Your task to perform on an android device: turn on showing notifications on the lock screen Image 0: 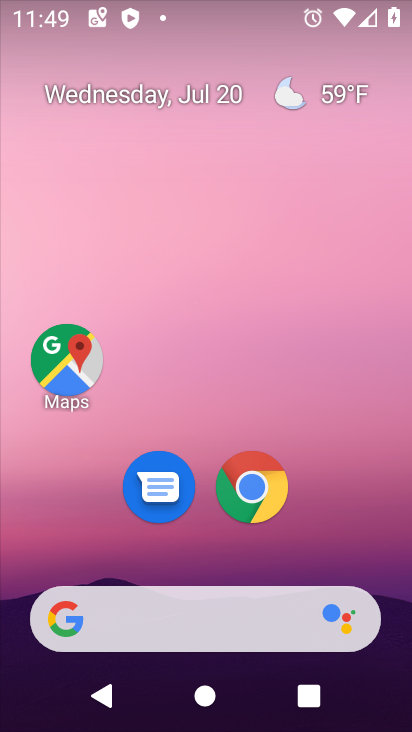
Step 0: drag from (380, 543) to (358, 167)
Your task to perform on an android device: turn on showing notifications on the lock screen Image 1: 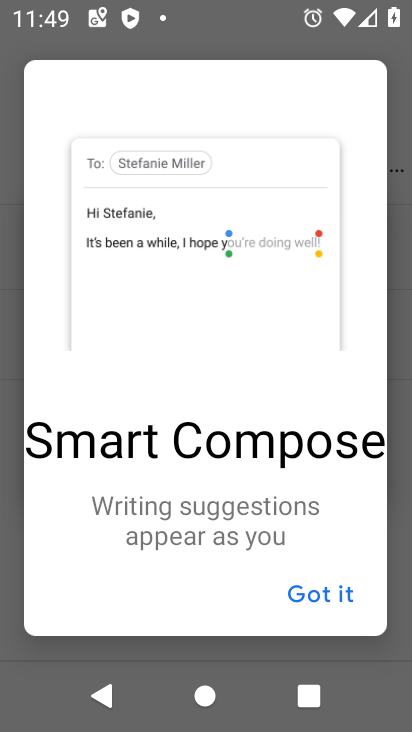
Step 1: press home button
Your task to perform on an android device: turn on showing notifications on the lock screen Image 2: 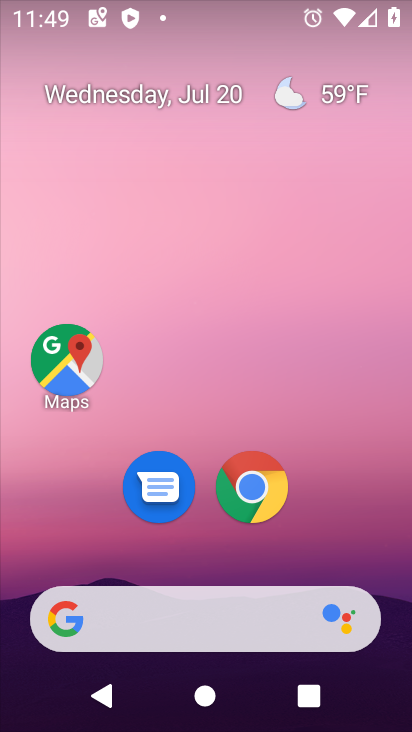
Step 2: drag from (351, 519) to (390, 128)
Your task to perform on an android device: turn on showing notifications on the lock screen Image 3: 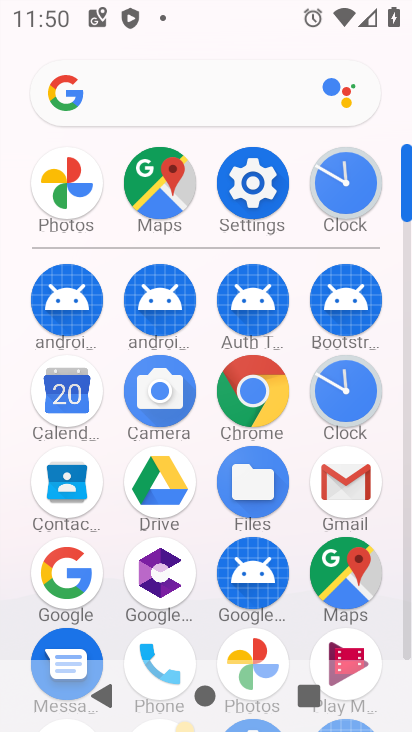
Step 3: click (263, 206)
Your task to perform on an android device: turn on showing notifications on the lock screen Image 4: 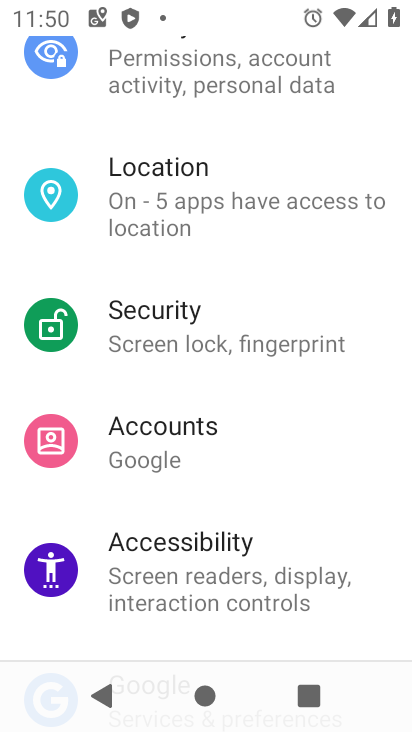
Step 4: drag from (335, 252) to (349, 332)
Your task to perform on an android device: turn on showing notifications on the lock screen Image 5: 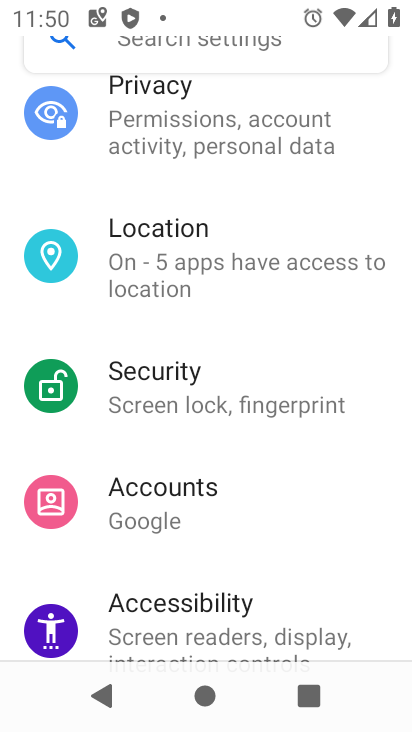
Step 5: drag from (387, 214) to (389, 295)
Your task to perform on an android device: turn on showing notifications on the lock screen Image 6: 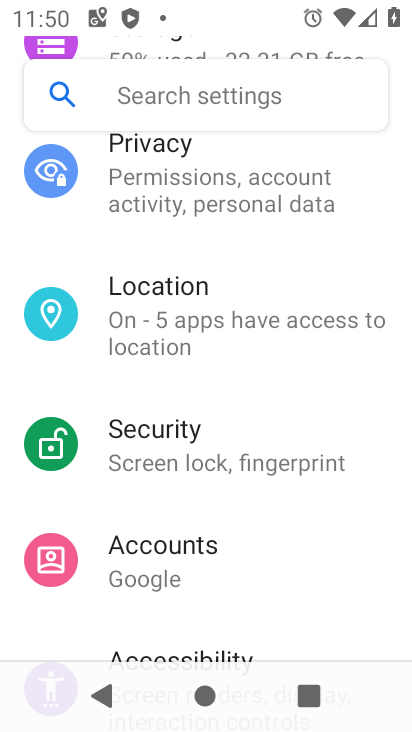
Step 6: drag from (375, 182) to (369, 265)
Your task to perform on an android device: turn on showing notifications on the lock screen Image 7: 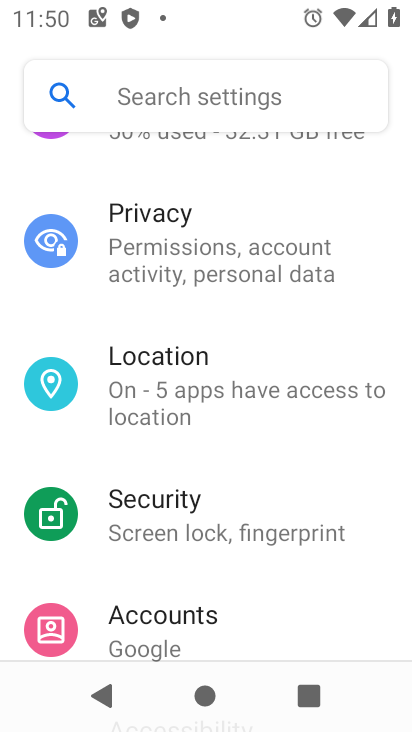
Step 7: drag from (348, 190) to (337, 323)
Your task to perform on an android device: turn on showing notifications on the lock screen Image 8: 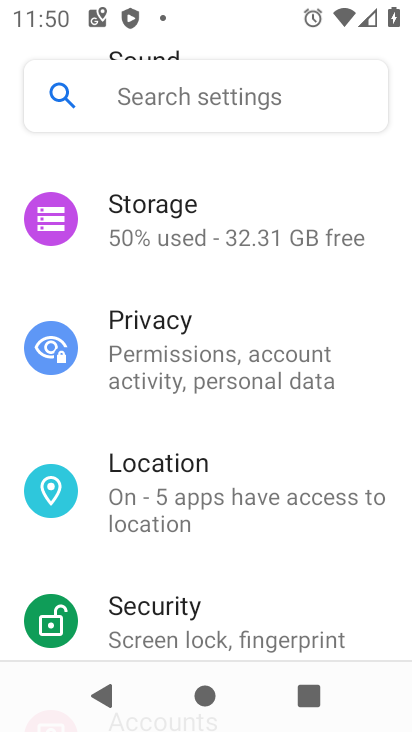
Step 8: drag from (374, 170) to (384, 329)
Your task to perform on an android device: turn on showing notifications on the lock screen Image 9: 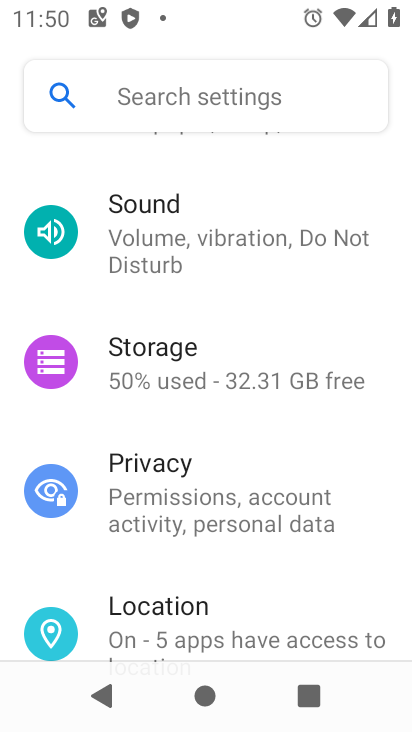
Step 9: drag from (365, 176) to (368, 323)
Your task to perform on an android device: turn on showing notifications on the lock screen Image 10: 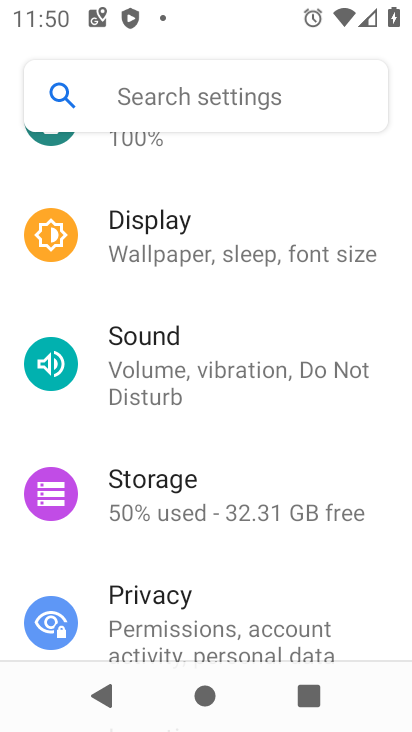
Step 10: drag from (324, 177) to (297, 344)
Your task to perform on an android device: turn on showing notifications on the lock screen Image 11: 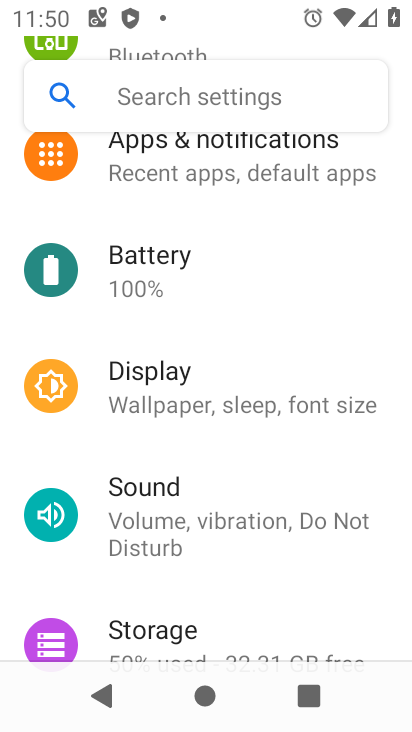
Step 11: drag from (285, 250) to (293, 343)
Your task to perform on an android device: turn on showing notifications on the lock screen Image 12: 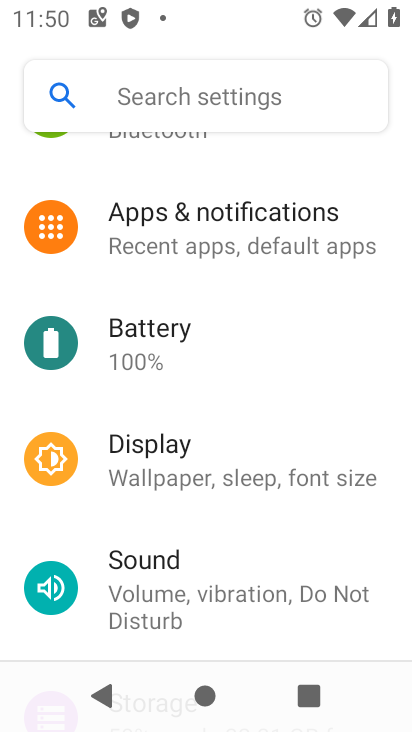
Step 12: click (284, 240)
Your task to perform on an android device: turn on showing notifications on the lock screen Image 13: 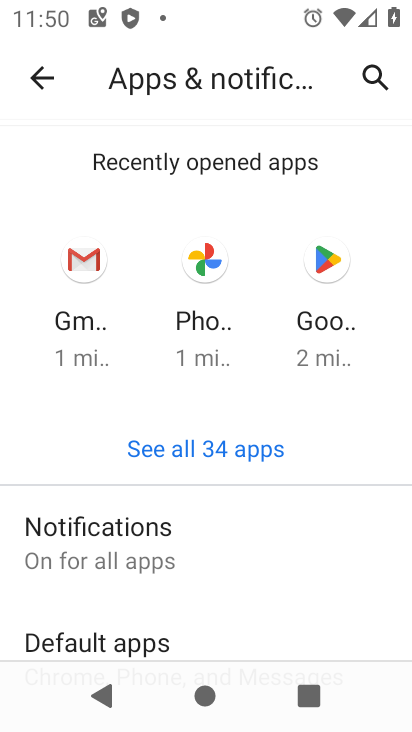
Step 13: click (151, 548)
Your task to perform on an android device: turn on showing notifications on the lock screen Image 14: 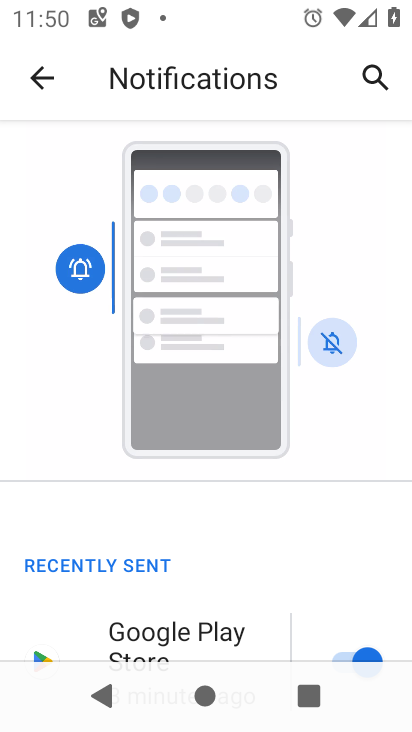
Step 14: drag from (193, 580) to (195, 223)
Your task to perform on an android device: turn on showing notifications on the lock screen Image 15: 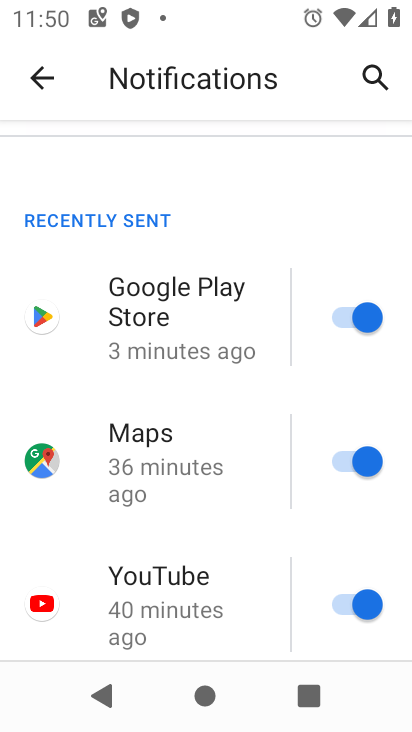
Step 15: drag from (252, 537) to (251, 311)
Your task to perform on an android device: turn on showing notifications on the lock screen Image 16: 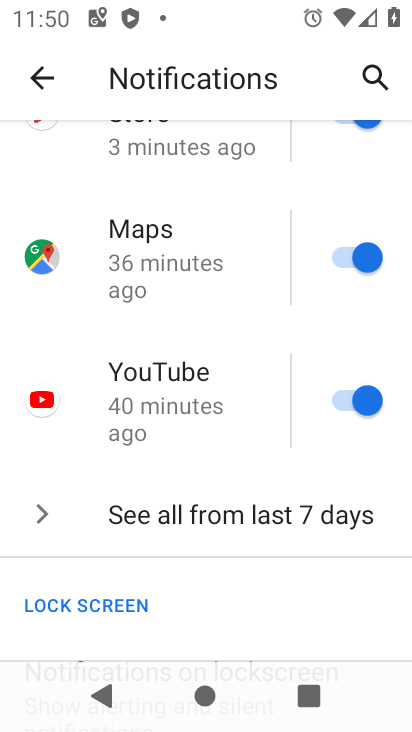
Step 16: drag from (255, 575) to (268, 396)
Your task to perform on an android device: turn on showing notifications on the lock screen Image 17: 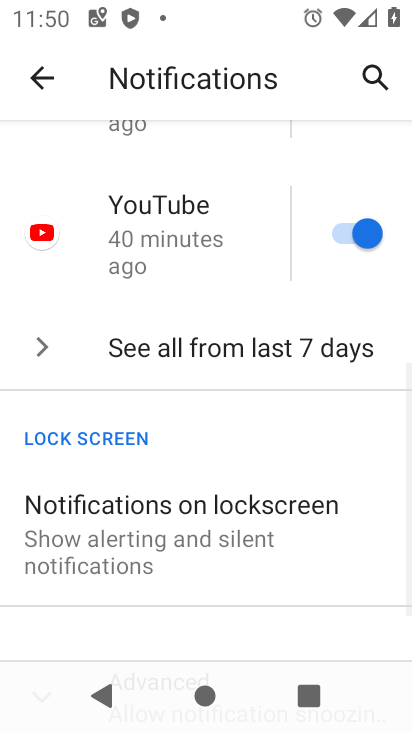
Step 17: click (265, 546)
Your task to perform on an android device: turn on showing notifications on the lock screen Image 18: 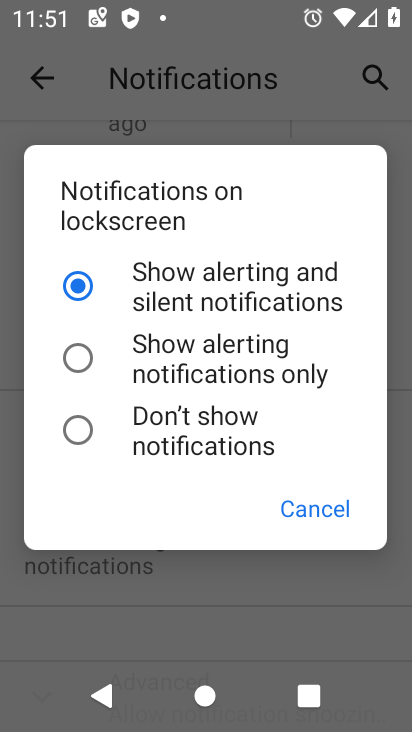
Step 18: task complete